Your task to perform on an android device: read, delete, or share a saved page in the chrome app Image 0: 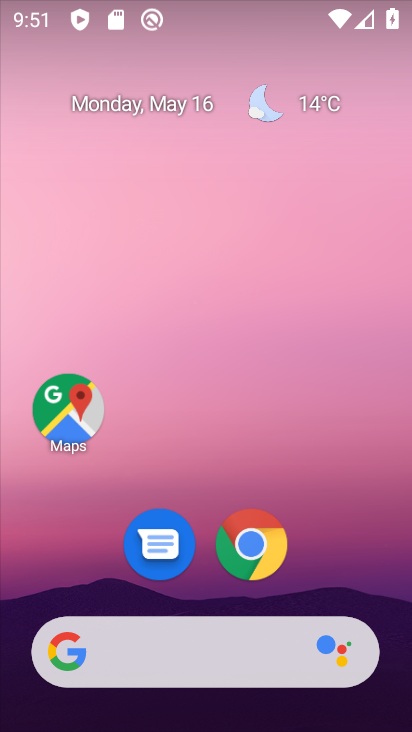
Step 0: click (267, 558)
Your task to perform on an android device: read, delete, or share a saved page in the chrome app Image 1: 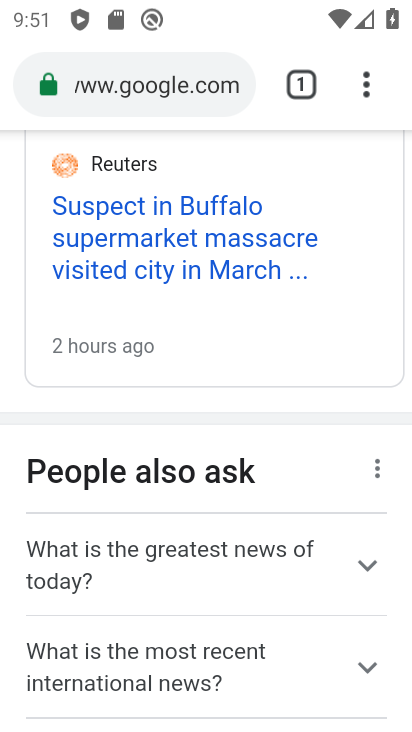
Step 1: task complete